Your task to perform on an android device: Go to notification settings Image 0: 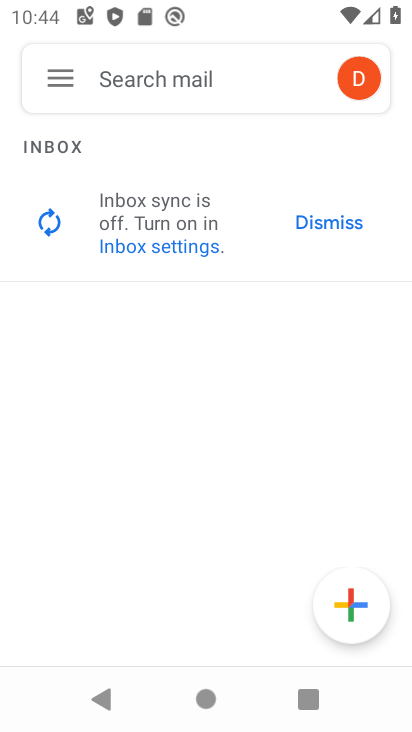
Step 0: press home button
Your task to perform on an android device: Go to notification settings Image 1: 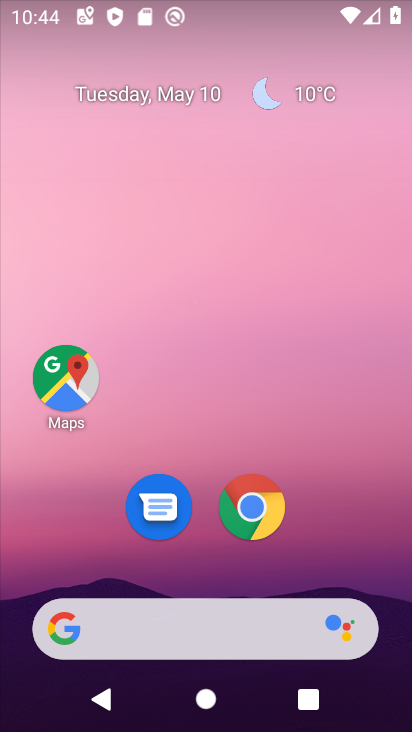
Step 1: drag from (189, 718) to (199, 95)
Your task to perform on an android device: Go to notification settings Image 2: 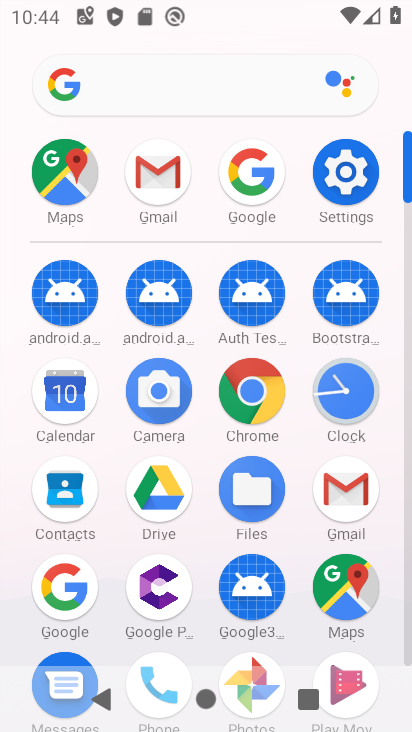
Step 2: click (347, 178)
Your task to perform on an android device: Go to notification settings Image 3: 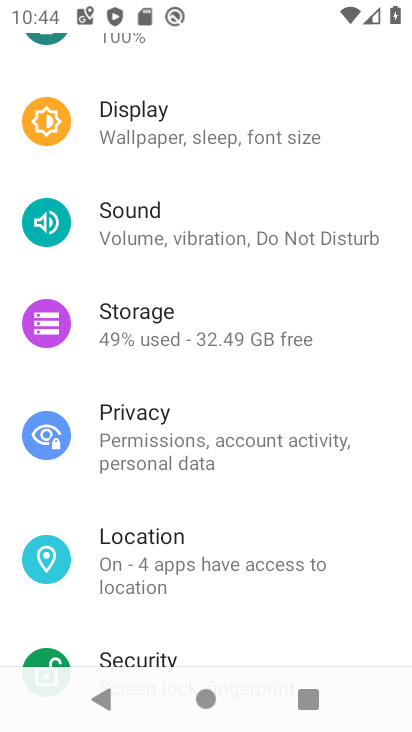
Step 3: drag from (246, 176) to (254, 503)
Your task to perform on an android device: Go to notification settings Image 4: 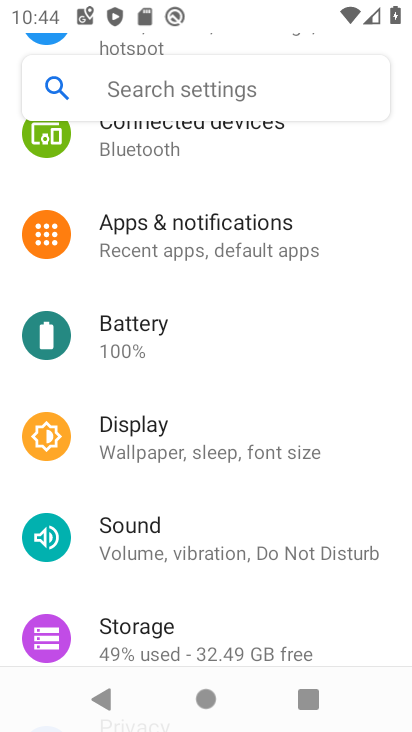
Step 4: click (215, 236)
Your task to perform on an android device: Go to notification settings Image 5: 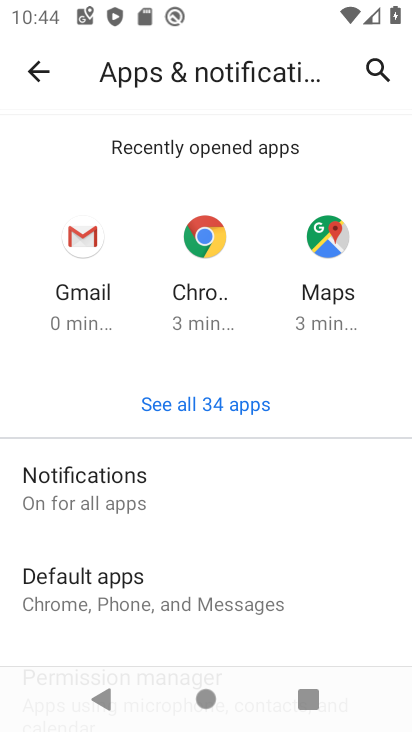
Step 5: click (76, 497)
Your task to perform on an android device: Go to notification settings Image 6: 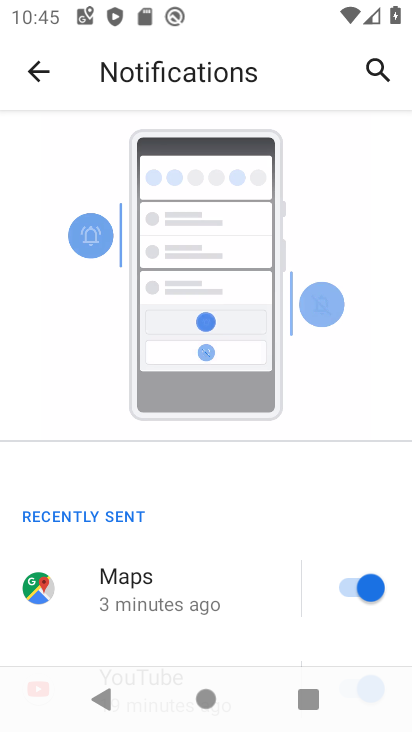
Step 6: task complete